Your task to perform on an android device: Open calendar and show me the first week of next month Image 0: 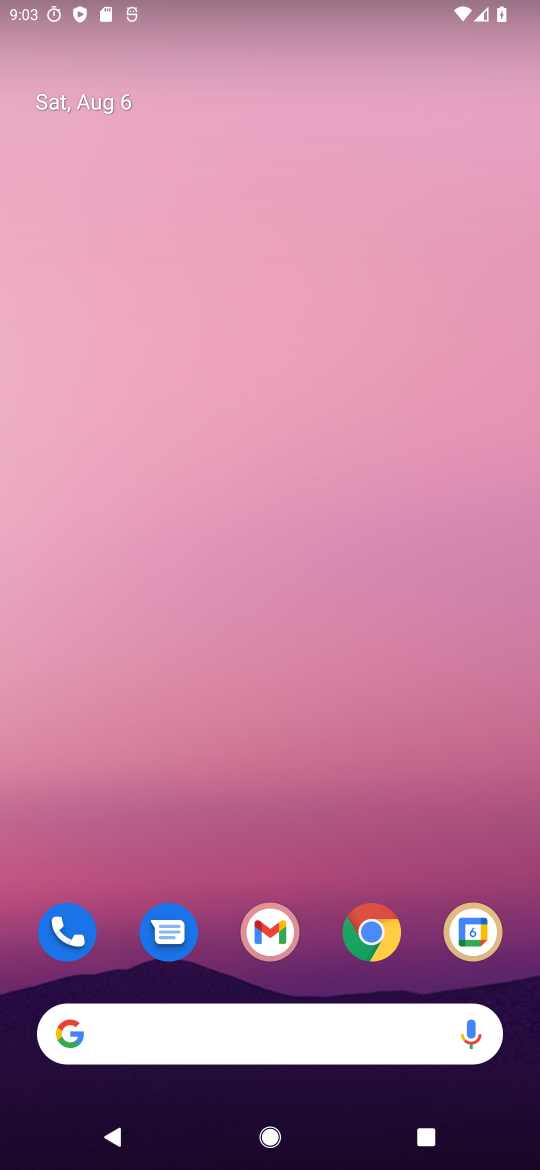
Step 0: press home button
Your task to perform on an android device: Open calendar and show me the first week of next month Image 1: 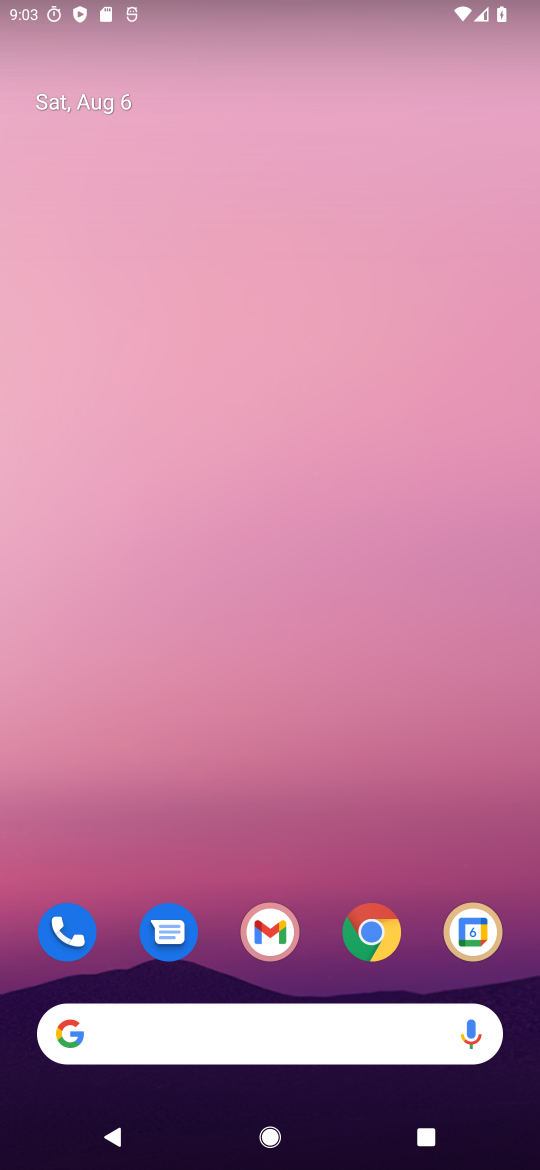
Step 1: drag from (282, 1020) to (470, 320)
Your task to perform on an android device: Open calendar and show me the first week of next month Image 2: 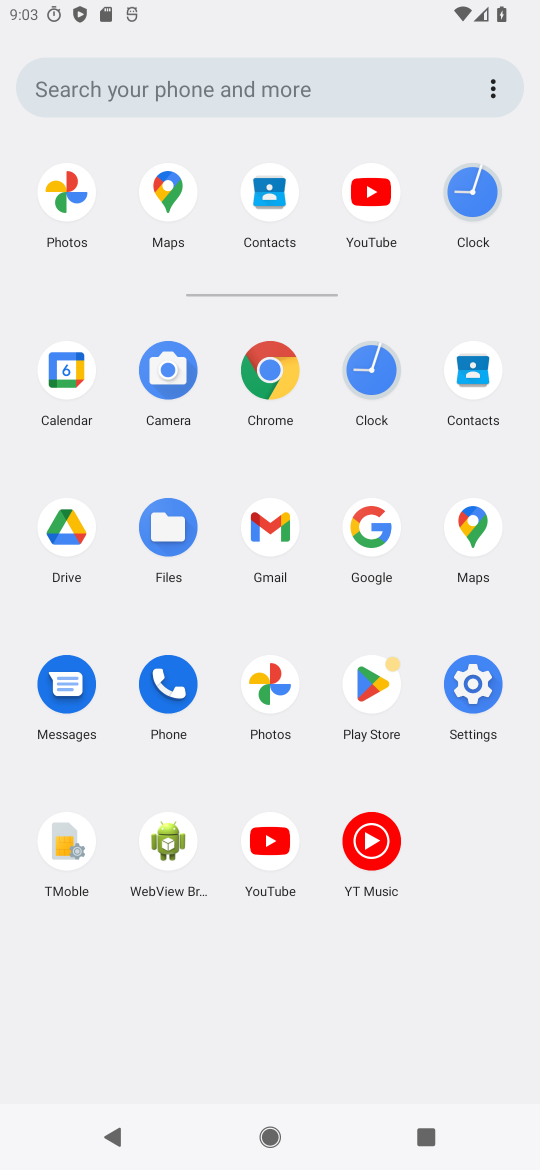
Step 2: click (62, 377)
Your task to perform on an android device: Open calendar and show me the first week of next month Image 3: 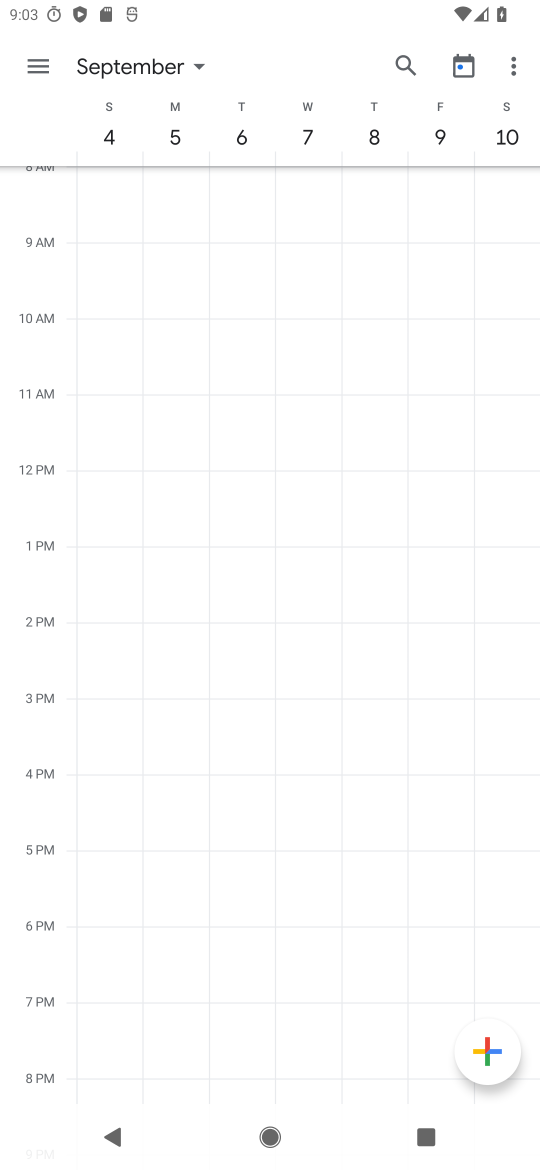
Step 3: click (148, 62)
Your task to perform on an android device: Open calendar and show me the first week of next month Image 4: 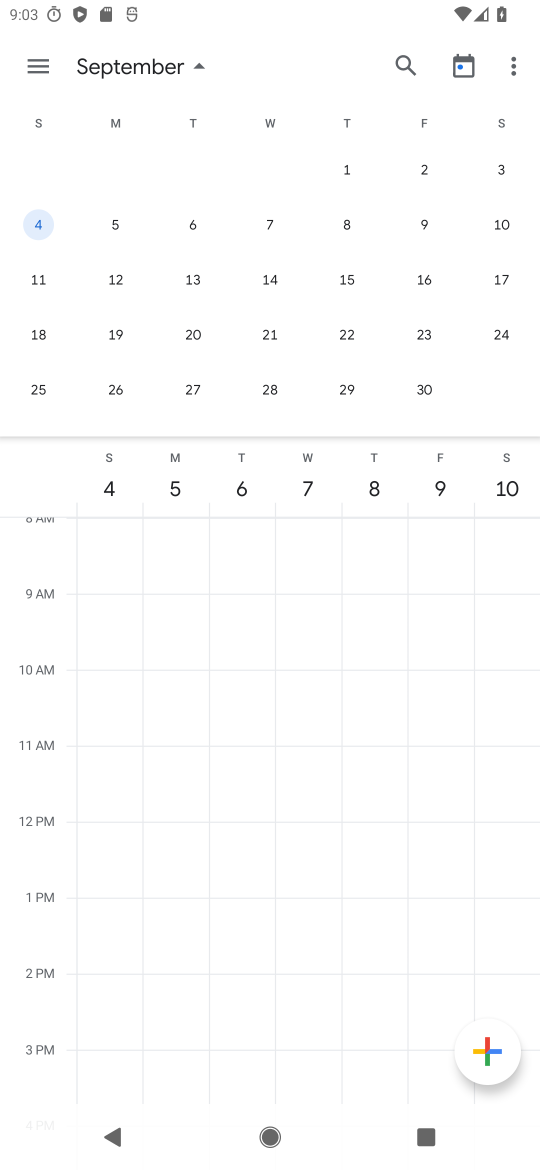
Step 4: click (350, 161)
Your task to perform on an android device: Open calendar and show me the first week of next month Image 5: 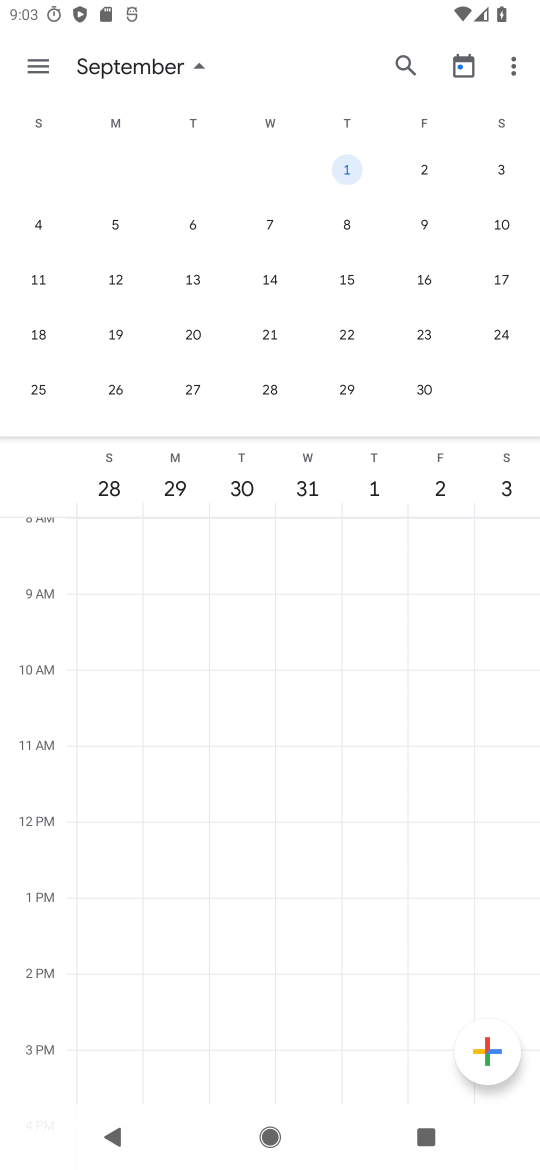
Step 5: task complete